Your task to perform on an android device: change the upload size in google photos Image 0: 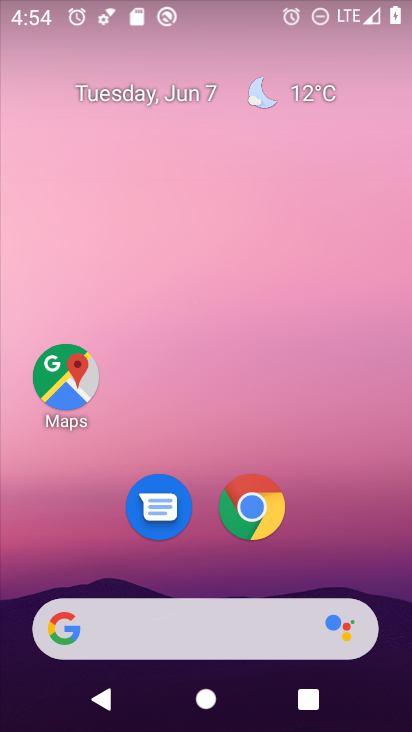
Step 0: drag from (304, 474) to (219, 15)
Your task to perform on an android device: change the upload size in google photos Image 1: 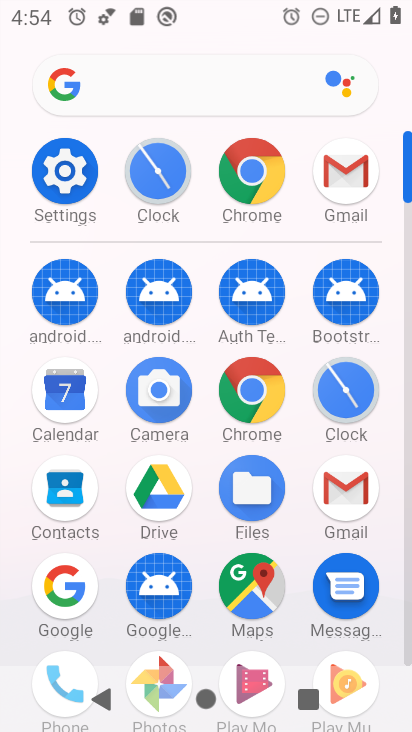
Step 1: drag from (9, 595) to (5, 224)
Your task to perform on an android device: change the upload size in google photos Image 2: 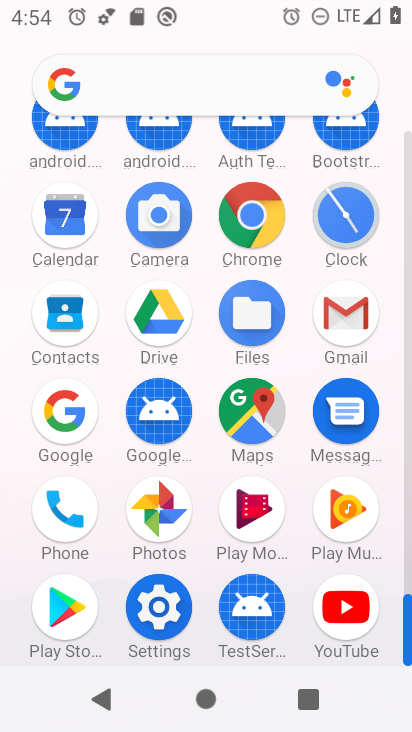
Step 2: click (161, 498)
Your task to perform on an android device: change the upload size in google photos Image 3: 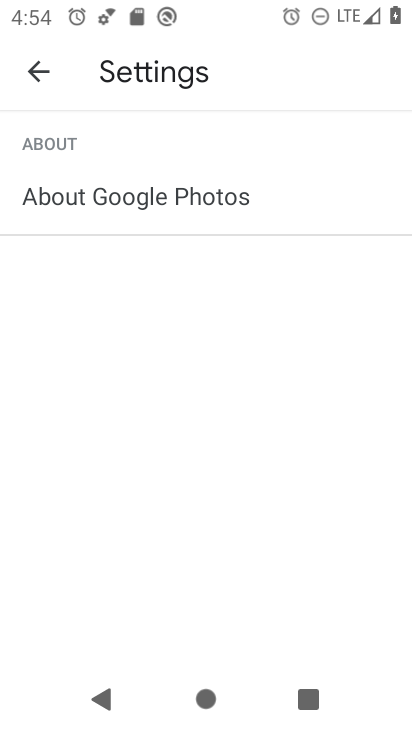
Step 3: click (42, 65)
Your task to perform on an android device: change the upload size in google photos Image 4: 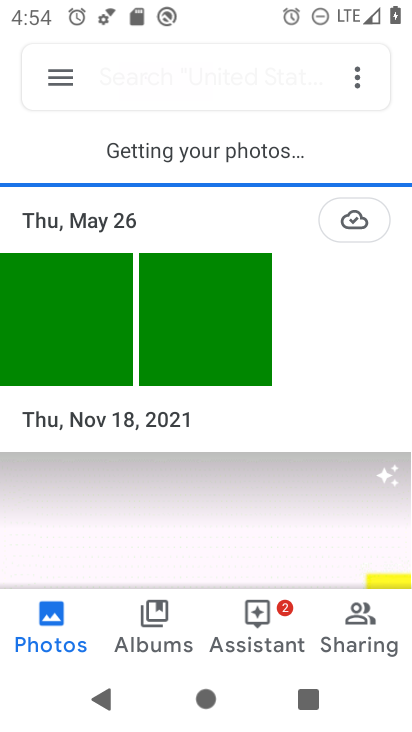
Step 4: click (42, 76)
Your task to perform on an android device: change the upload size in google photos Image 5: 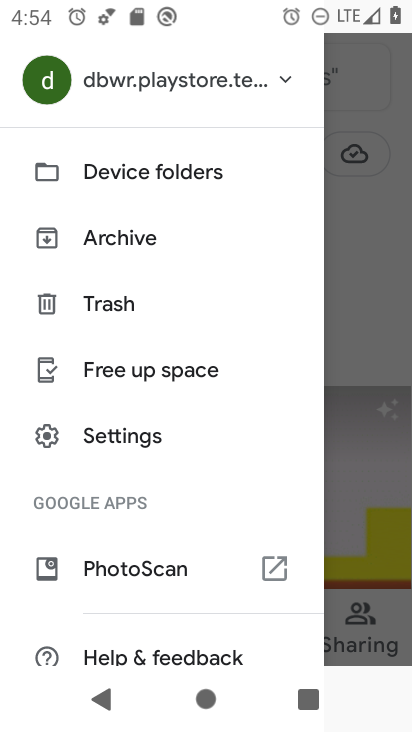
Step 5: drag from (164, 601) to (199, 151)
Your task to perform on an android device: change the upload size in google photos Image 6: 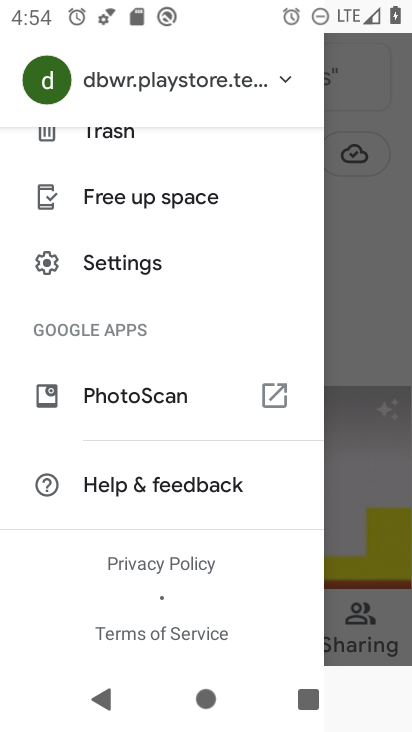
Step 6: drag from (193, 212) to (150, 564)
Your task to perform on an android device: change the upload size in google photos Image 7: 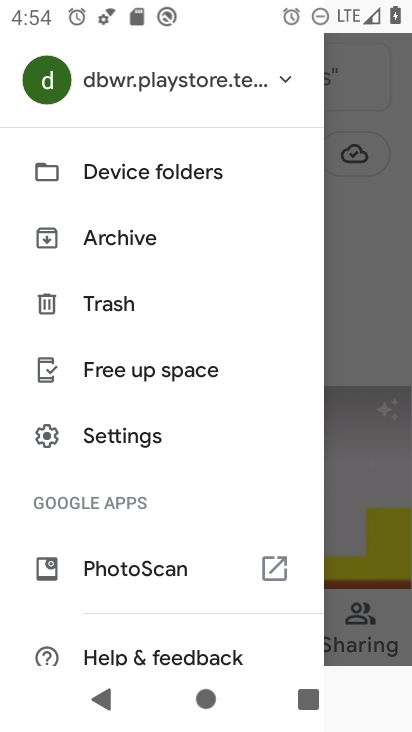
Step 7: click (140, 425)
Your task to perform on an android device: change the upload size in google photos Image 8: 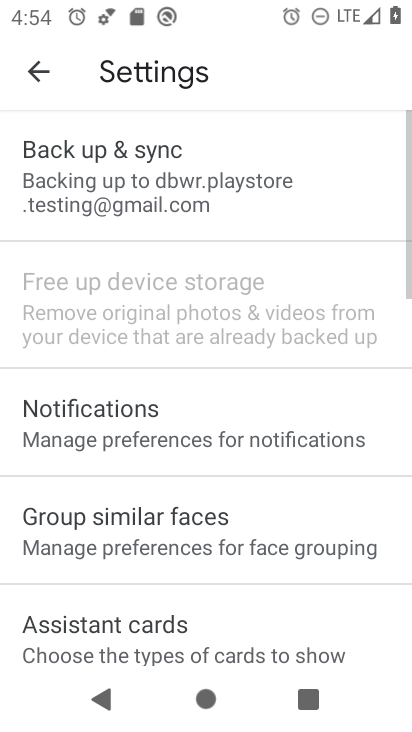
Step 8: click (208, 173)
Your task to perform on an android device: change the upload size in google photos Image 9: 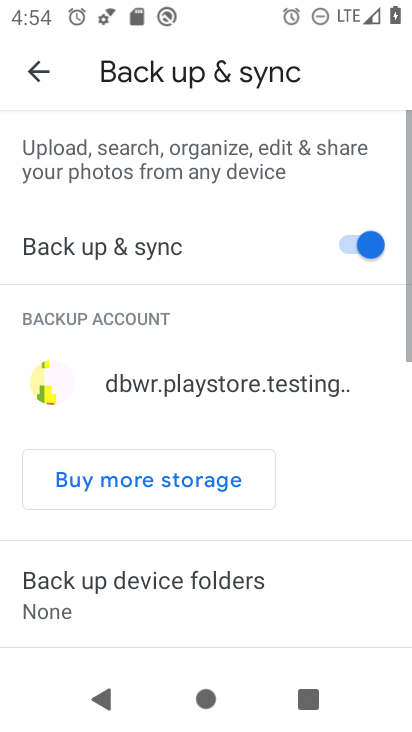
Step 9: drag from (226, 607) to (244, 160)
Your task to perform on an android device: change the upload size in google photos Image 10: 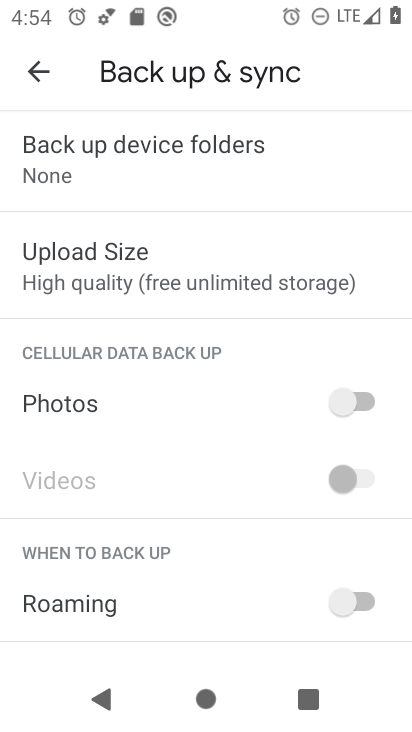
Step 10: drag from (137, 530) to (212, 159)
Your task to perform on an android device: change the upload size in google photos Image 11: 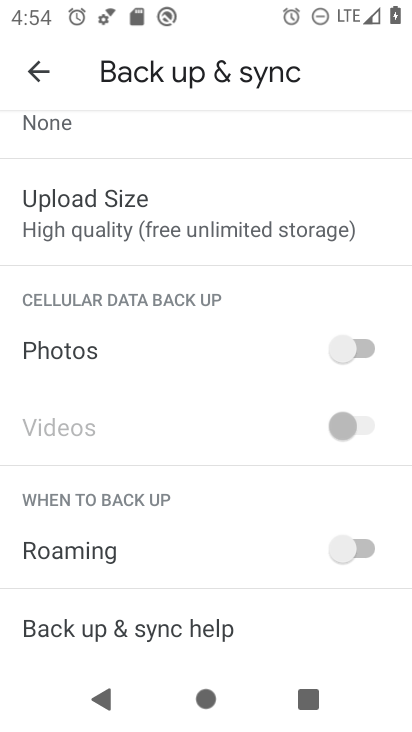
Step 11: click (194, 204)
Your task to perform on an android device: change the upload size in google photos Image 12: 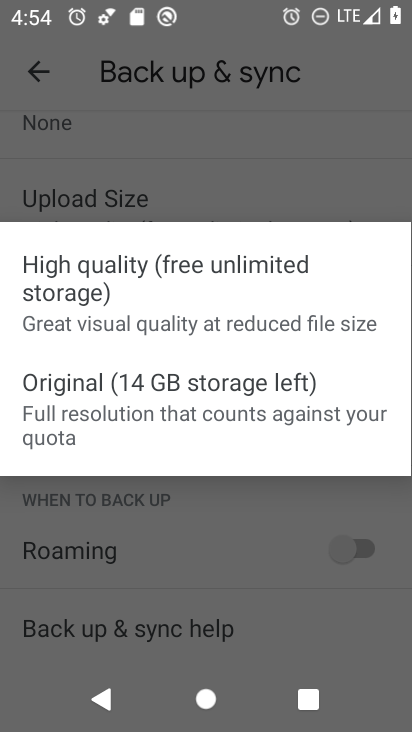
Step 12: click (158, 380)
Your task to perform on an android device: change the upload size in google photos Image 13: 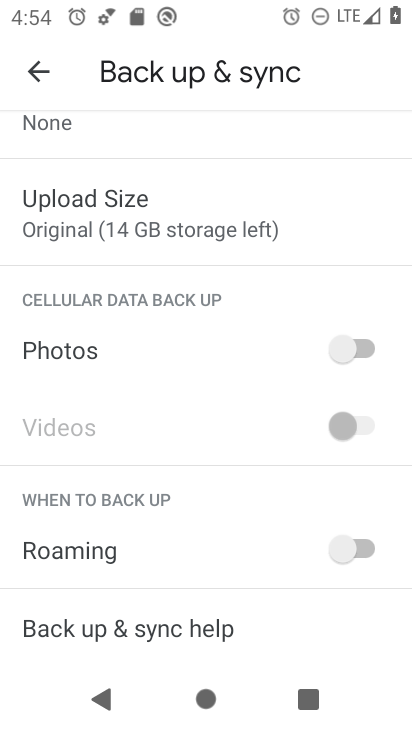
Step 13: task complete